Your task to perform on an android device: Turn on the flashlight Image 0: 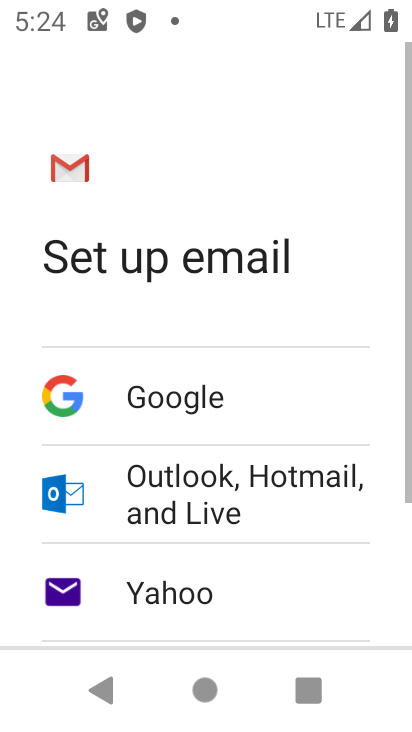
Step 0: press back button
Your task to perform on an android device: Turn on the flashlight Image 1: 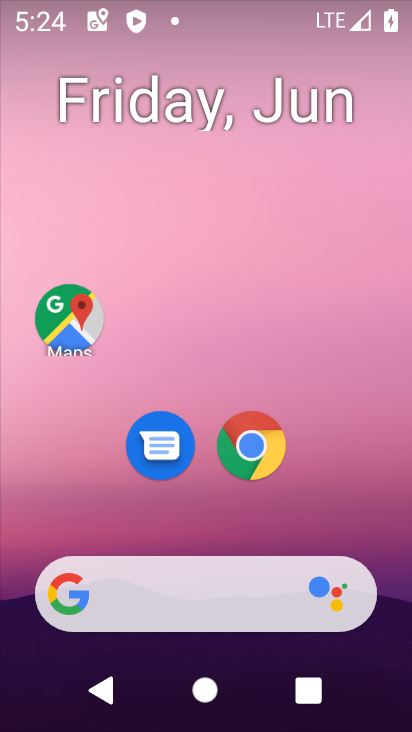
Step 1: drag from (389, 668) to (341, 35)
Your task to perform on an android device: Turn on the flashlight Image 2: 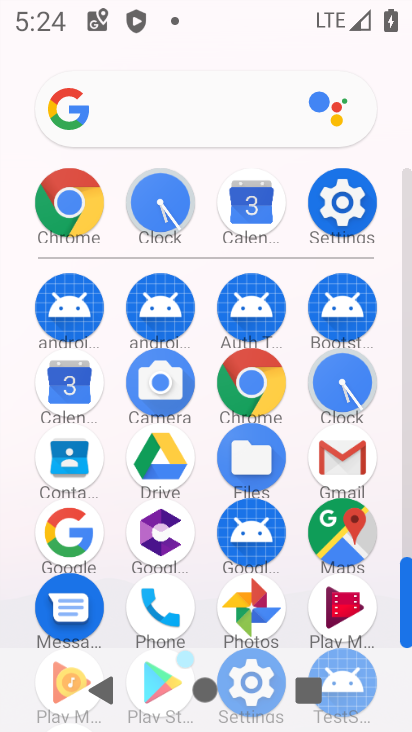
Step 2: click (344, 198)
Your task to perform on an android device: Turn on the flashlight Image 3: 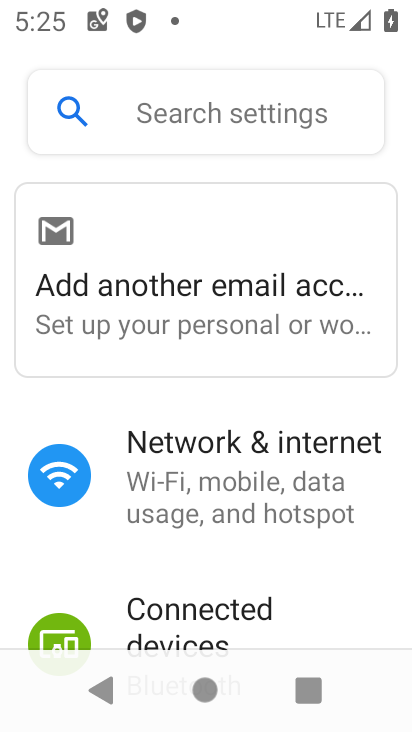
Step 3: click (255, 490)
Your task to perform on an android device: Turn on the flashlight Image 4: 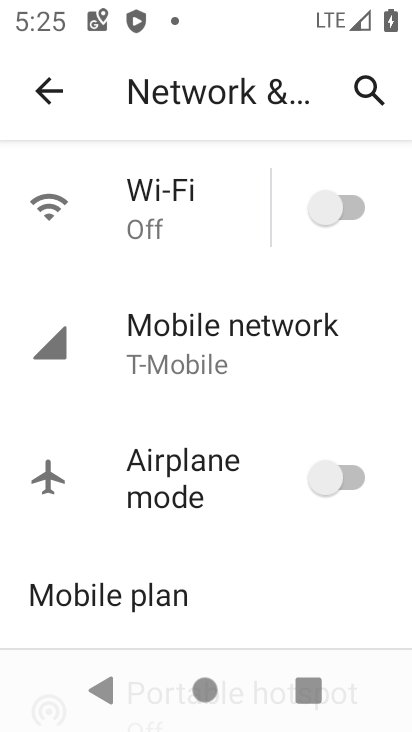
Step 4: drag from (208, 543) to (236, 173)
Your task to perform on an android device: Turn on the flashlight Image 5: 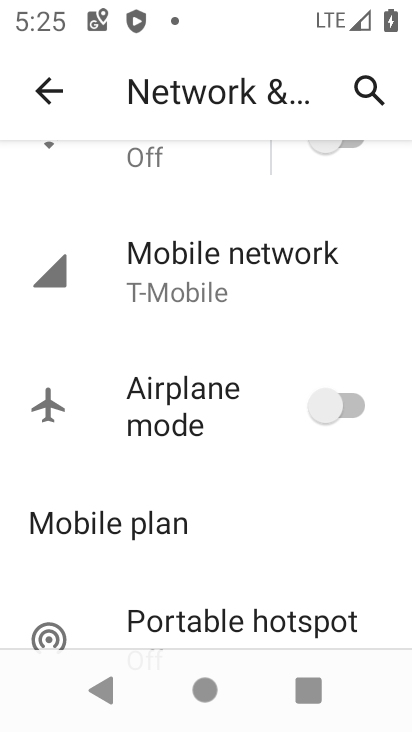
Step 5: drag from (213, 530) to (213, 177)
Your task to perform on an android device: Turn on the flashlight Image 6: 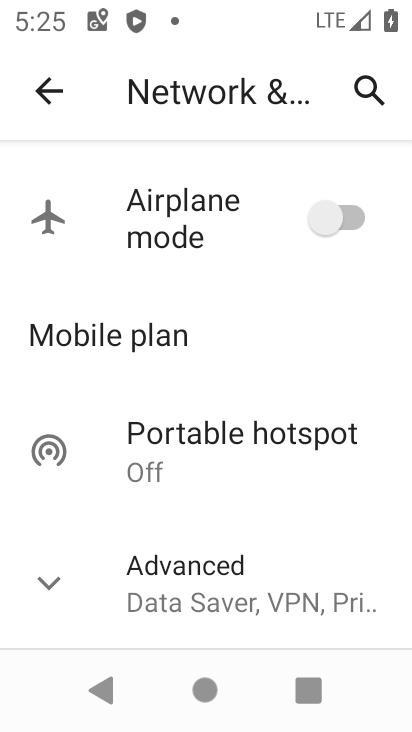
Step 6: click (76, 562)
Your task to perform on an android device: Turn on the flashlight Image 7: 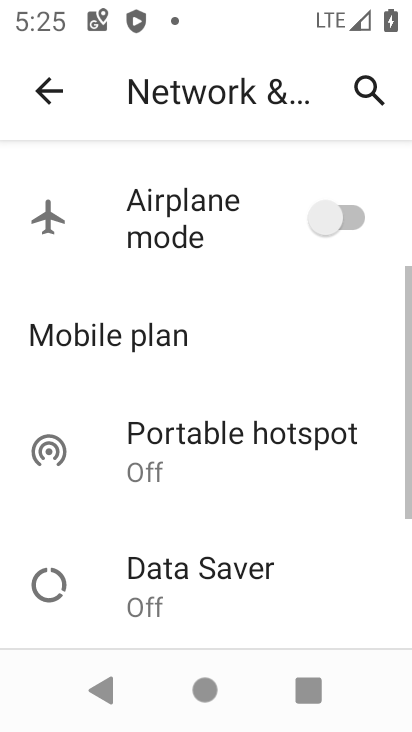
Step 7: task complete